Your task to perform on an android device: Open calendar and show me the first week of next month Image 0: 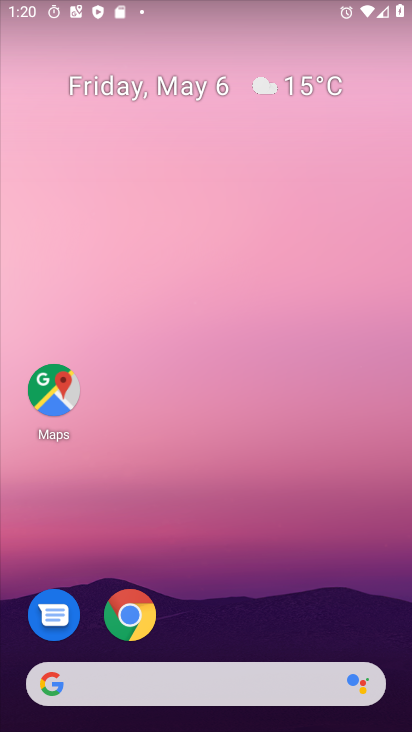
Step 0: drag from (282, 536) to (235, 36)
Your task to perform on an android device: Open calendar and show me the first week of next month Image 1: 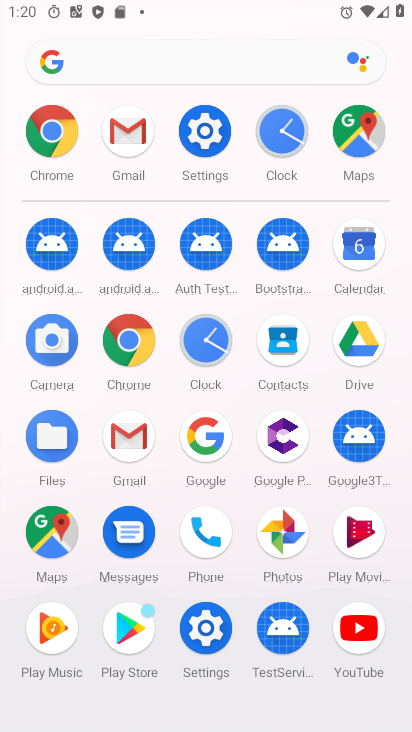
Step 1: click (354, 246)
Your task to perform on an android device: Open calendar and show me the first week of next month Image 2: 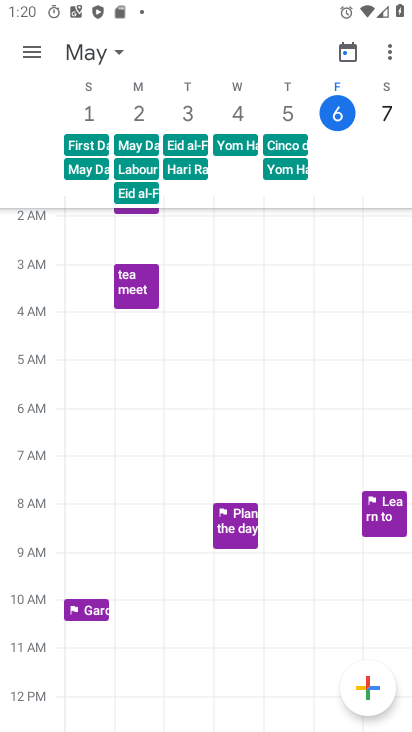
Step 2: task complete